Your task to perform on an android device: toggle priority inbox in the gmail app Image 0: 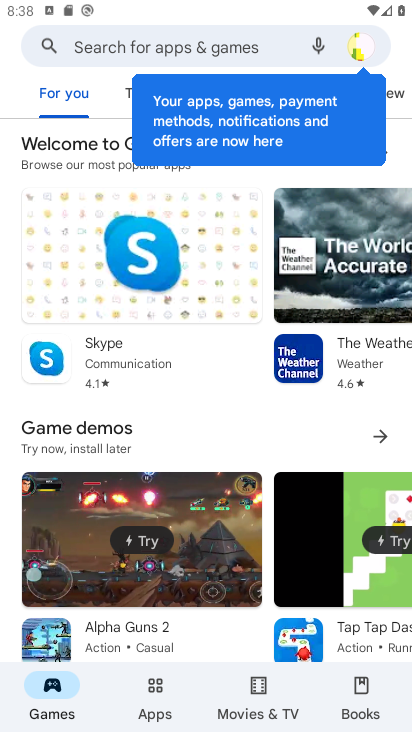
Step 0: press home button
Your task to perform on an android device: toggle priority inbox in the gmail app Image 1: 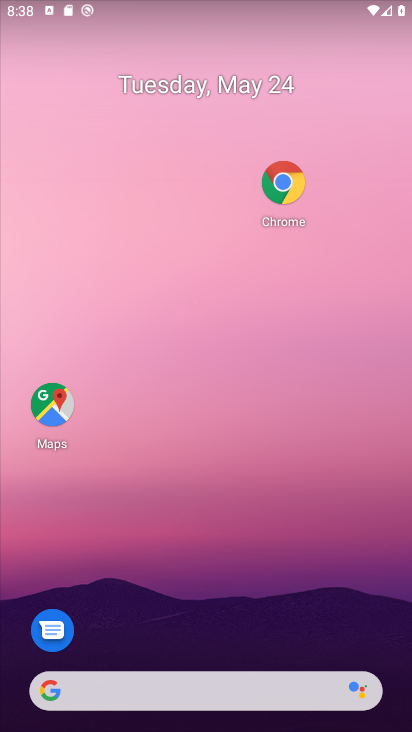
Step 1: drag from (185, 366) to (213, 216)
Your task to perform on an android device: toggle priority inbox in the gmail app Image 2: 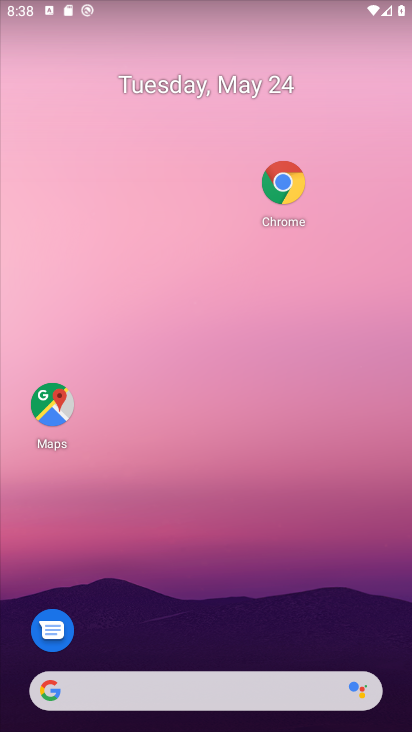
Step 2: drag from (216, 721) to (253, 0)
Your task to perform on an android device: toggle priority inbox in the gmail app Image 3: 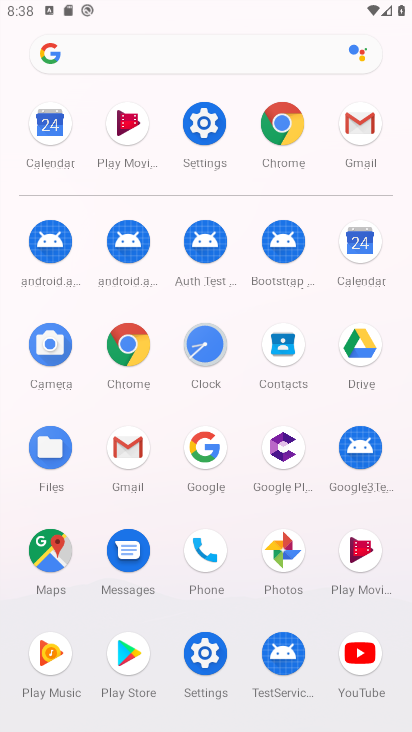
Step 3: click (364, 127)
Your task to perform on an android device: toggle priority inbox in the gmail app Image 4: 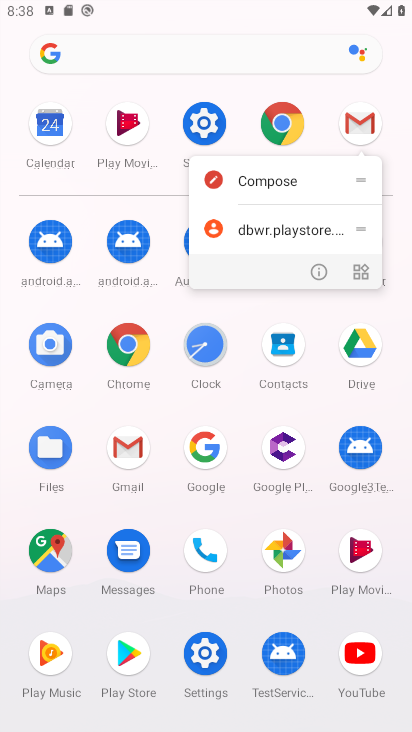
Step 4: click (363, 127)
Your task to perform on an android device: toggle priority inbox in the gmail app Image 5: 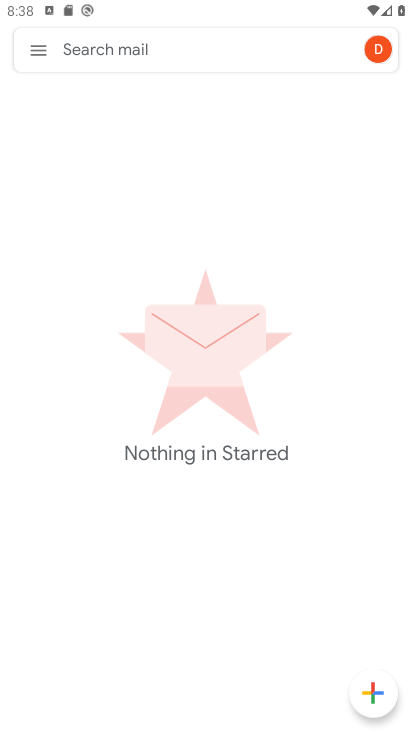
Step 5: click (49, 48)
Your task to perform on an android device: toggle priority inbox in the gmail app Image 6: 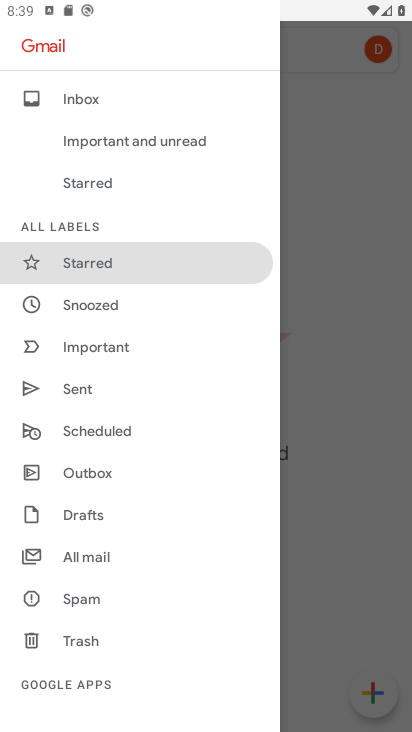
Step 6: drag from (112, 619) to (144, 406)
Your task to perform on an android device: toggle priority inbox in the gmail app Image 7: 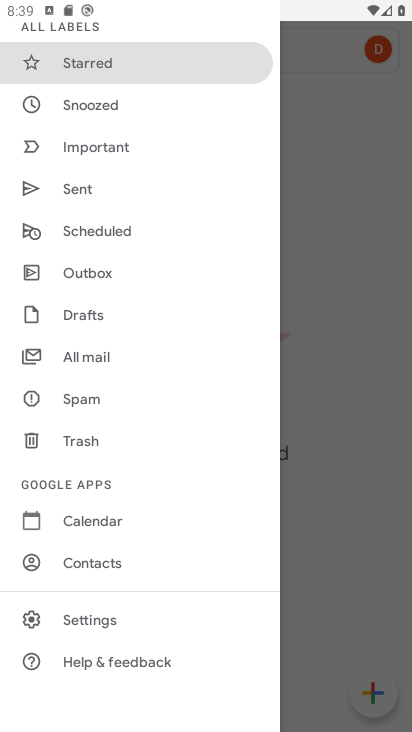
Step 7: click (86, 633)
Your task to perform on an android device: toggle priority inbox in the gmail app Image 8: 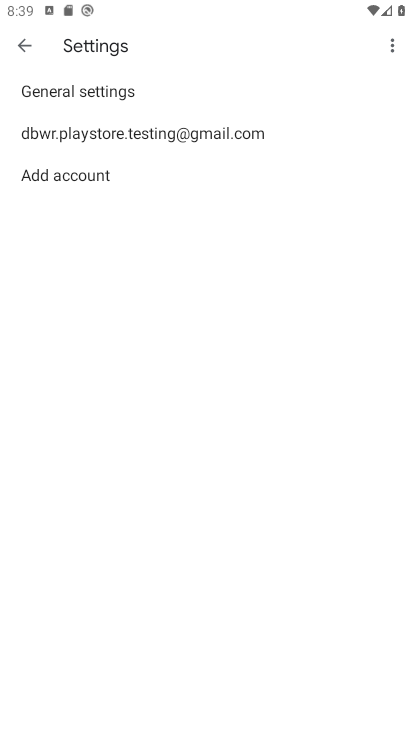
Step 8: click (124, 137)
Your task to perform on an android device: toggle priority inbox in the gmail app Image 9: 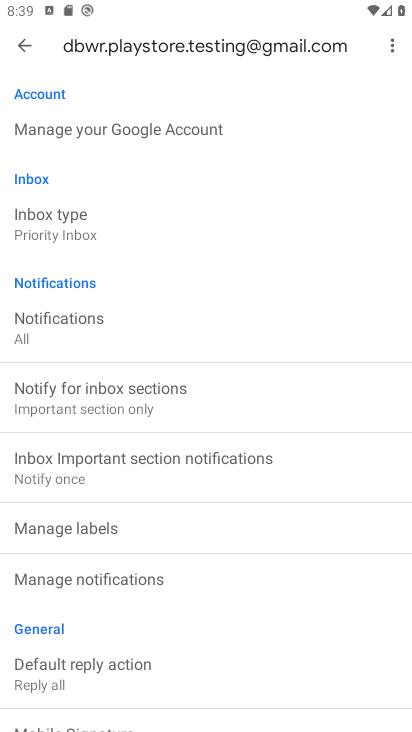
Step 9: click (117, 228)
Your task to perform on an android device: toggle priority inbox in the gmail app Image 10: 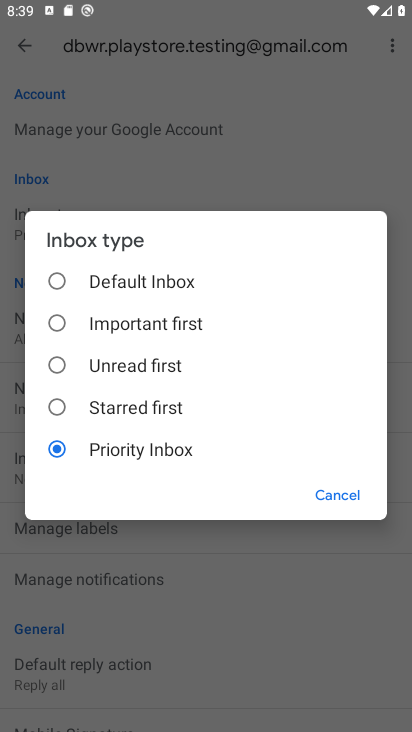
Step 10: task complete